Your task to perform on an android device: open a new tab in the chrome app Image 0: 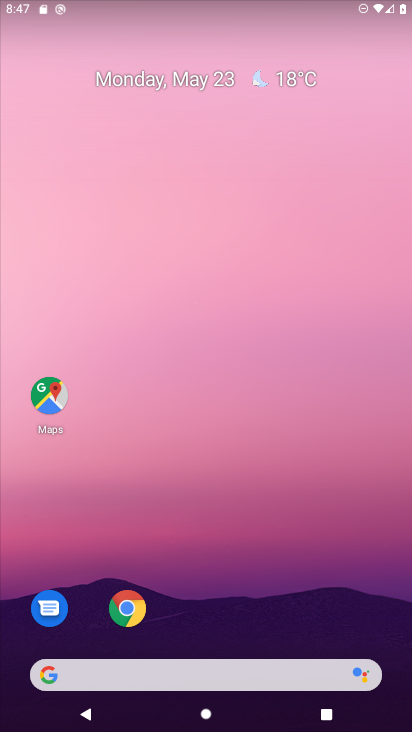
Step 0: click (126, 603)
Your task to perform on an android device: open a new tab in the chrome app Image 1: 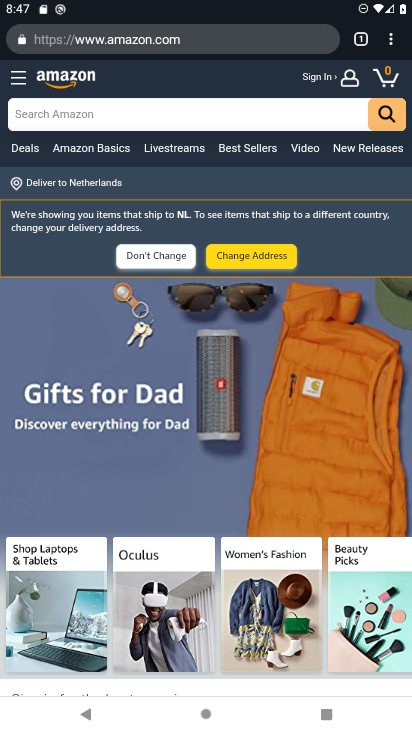
Step 1: click (395, 46)
Your task to perform on an android device: open a new tab in the chrome app Image 2: 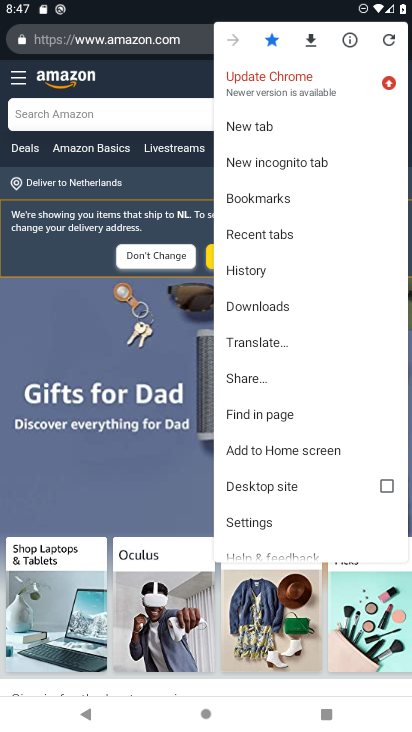
Step 2: click (273, 124)
Your task to perform on an android device: open a new tab in the chrome app Image 3: 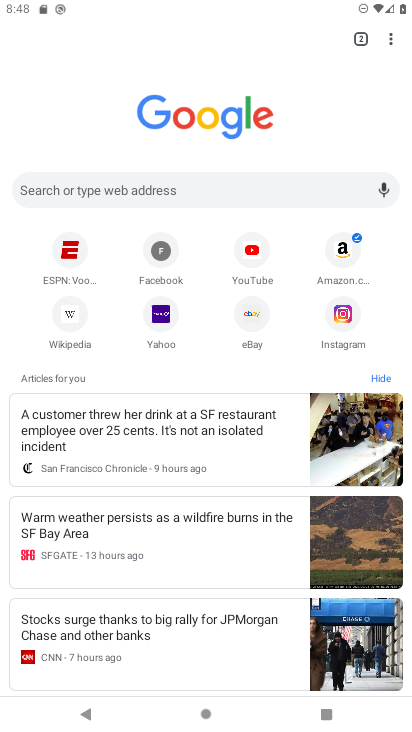
Step 3: task complete